Your task to perform on an android device: set the timer Image 0: 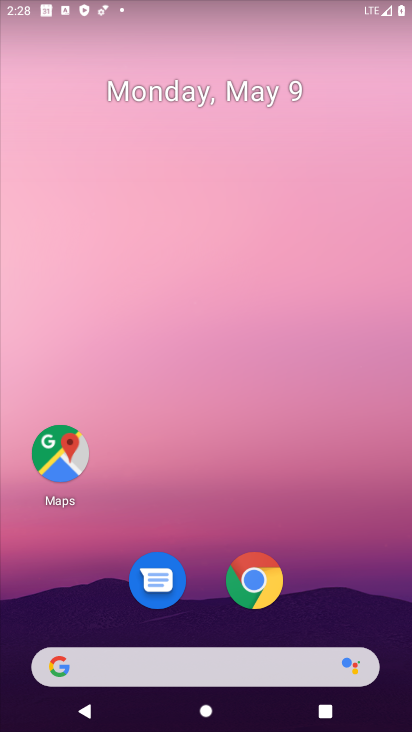
Step 0: drag from (304, 523) to (222, 39)
Your task to perform on an android device: set the timer Image 1: 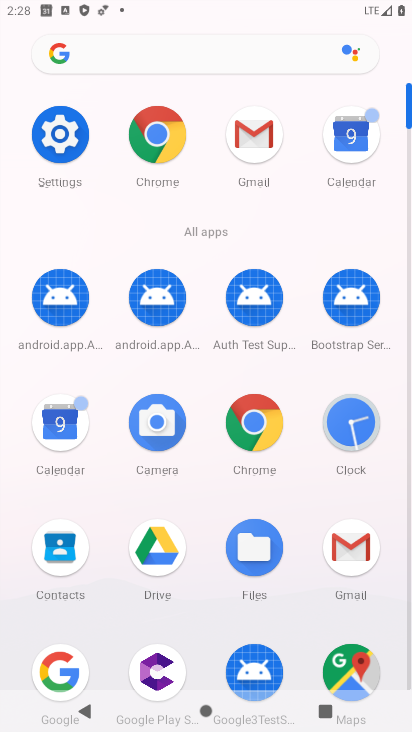
Step 1: click (350, 444)
Your task to perform on an android device: set the timer Image 2: 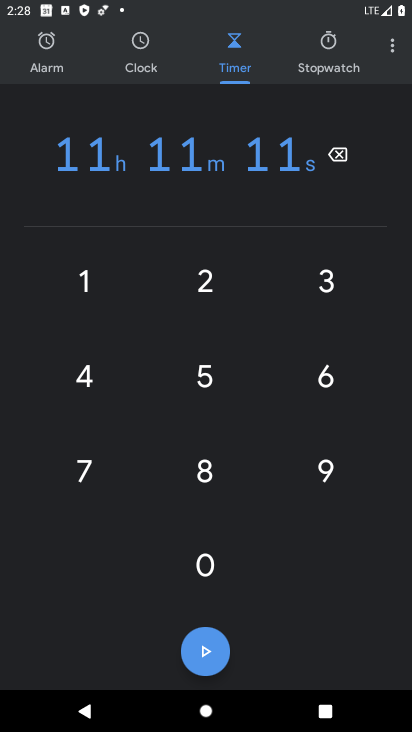
Step 2: click (212, 642)
Your task to perform on an android device: set the timer Image 3: 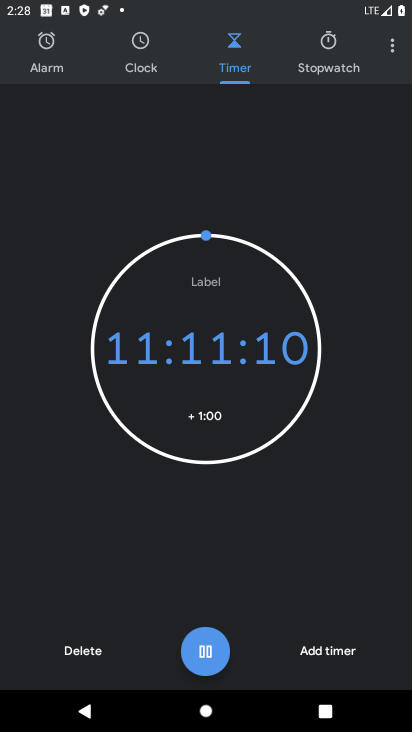
Step 3: task complete